Your task to perform on an android device: Open Google Image 0: 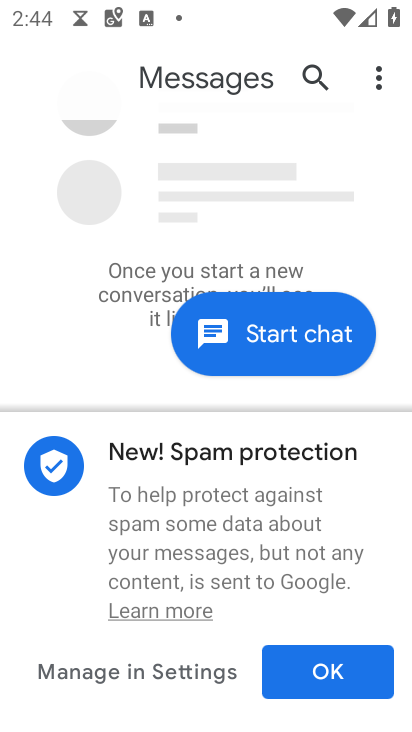
Step 0: press home button
Your task to perform on an android device: Open Google Image 1: 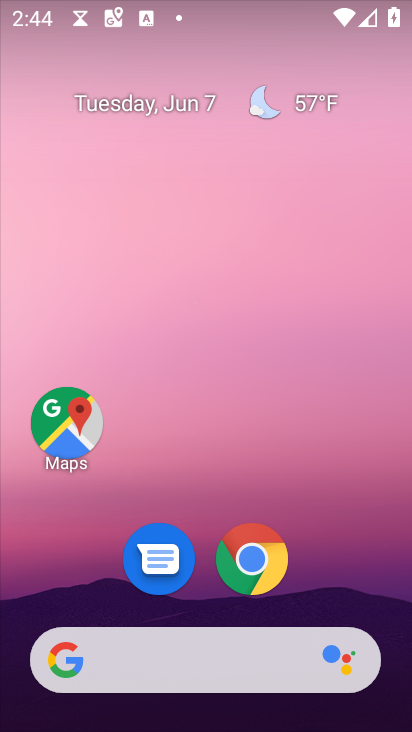
Step 1: drag from (0, 704) to (277, 215)
Your task to perform on an android device: Open Google Image 2: 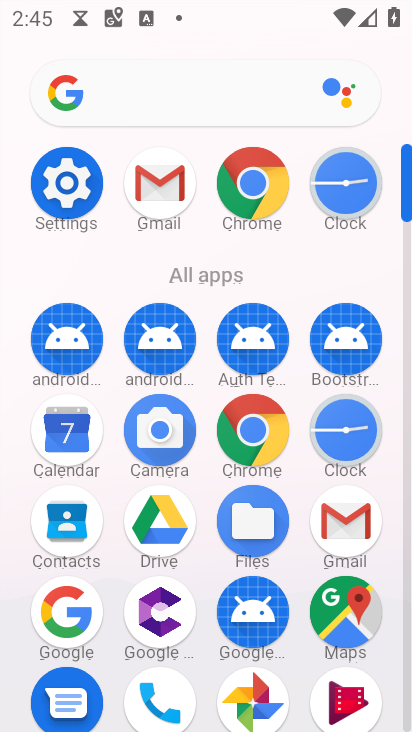
Step 2: click (64, 604)
Your task to perform on an android device: Open Google Image 3: 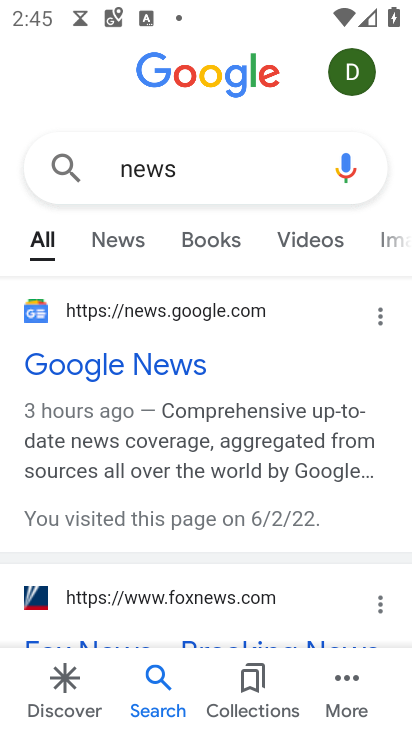
Step 3: task complete